Your task to perform on an android device: What's the weather like in Johannesburg? Image 0: 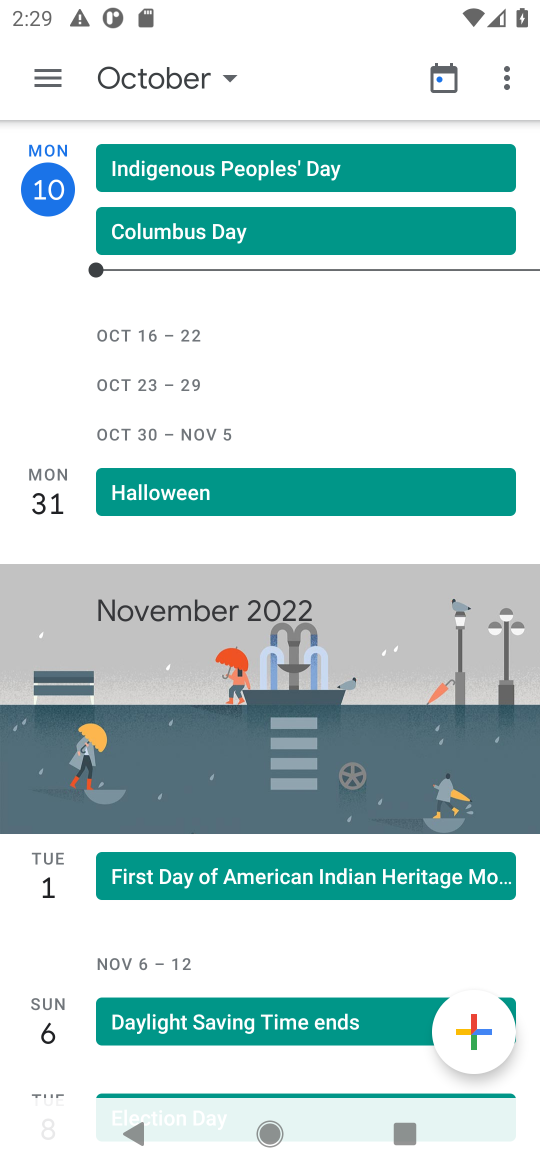
Step 0: press home button
Your task to perform on an android device: What's the weather like in Johannesburg? Image 1: 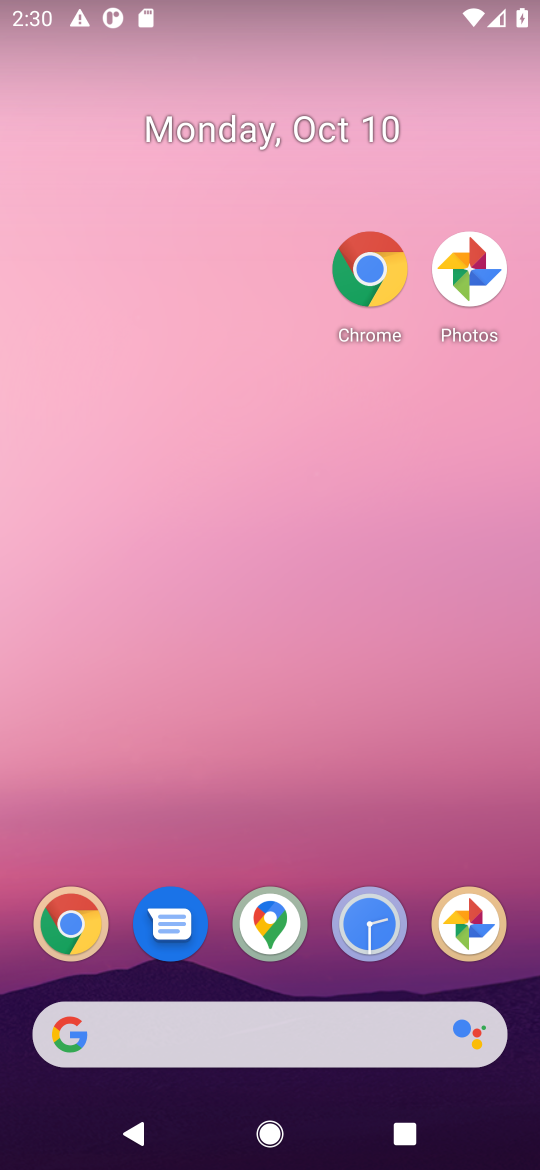
Step 1: drag from (310, 859) to (254, 120)
Your task to perform on an android device: What's the weather like in Johannesburg? Image 2: 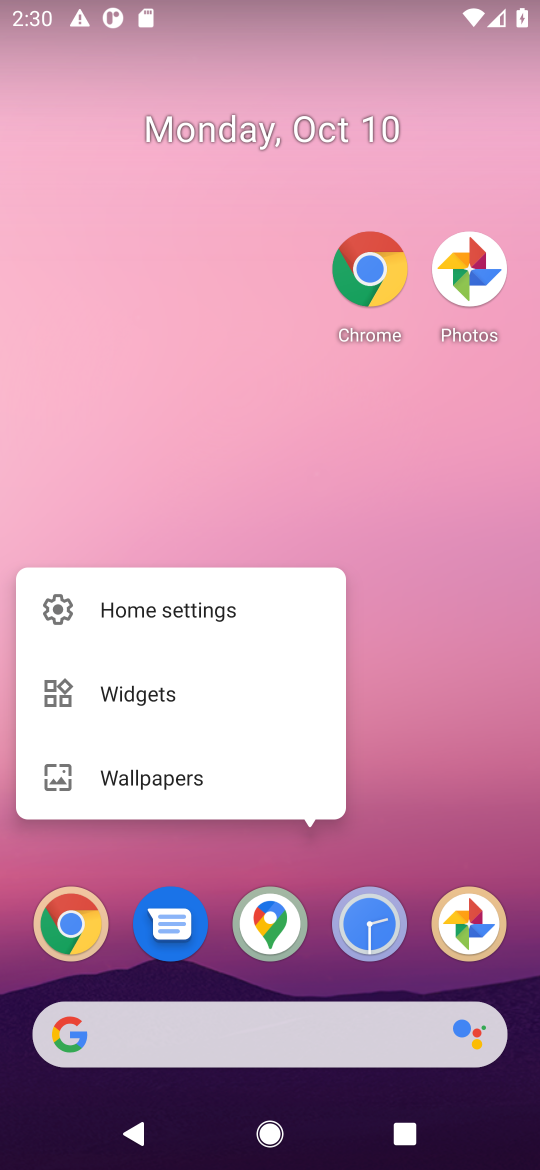
Step 2: click (410, 617)
Your task to perform on an android device: What's the weather like in Johannesburg? Image 3: 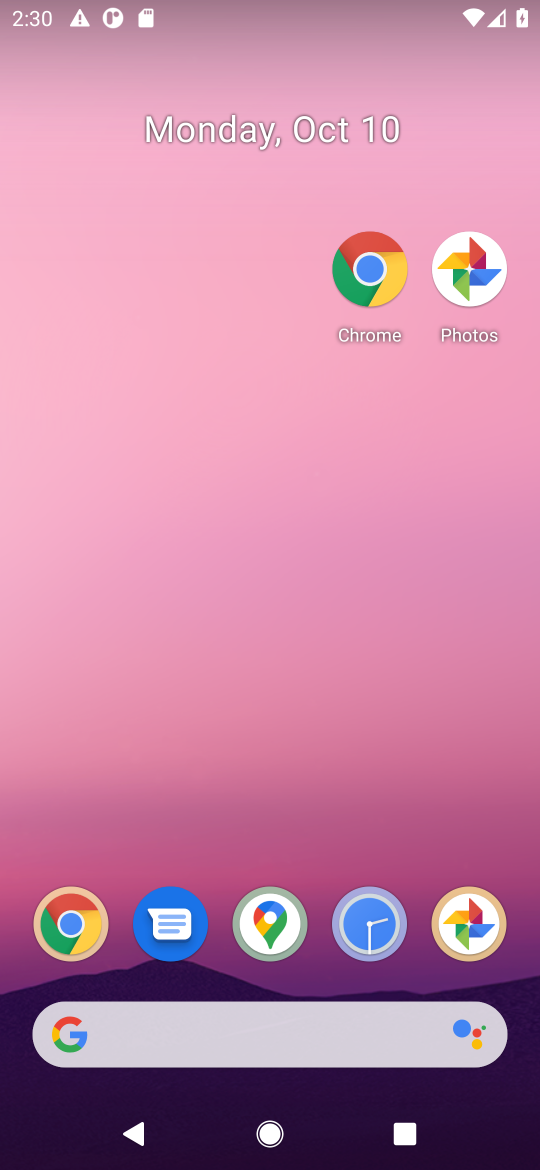
Step 3: drag from (415, 879) to (360, 41)
Your task to perform on an android device: What's the weather like in Johannesburg? Image 4: 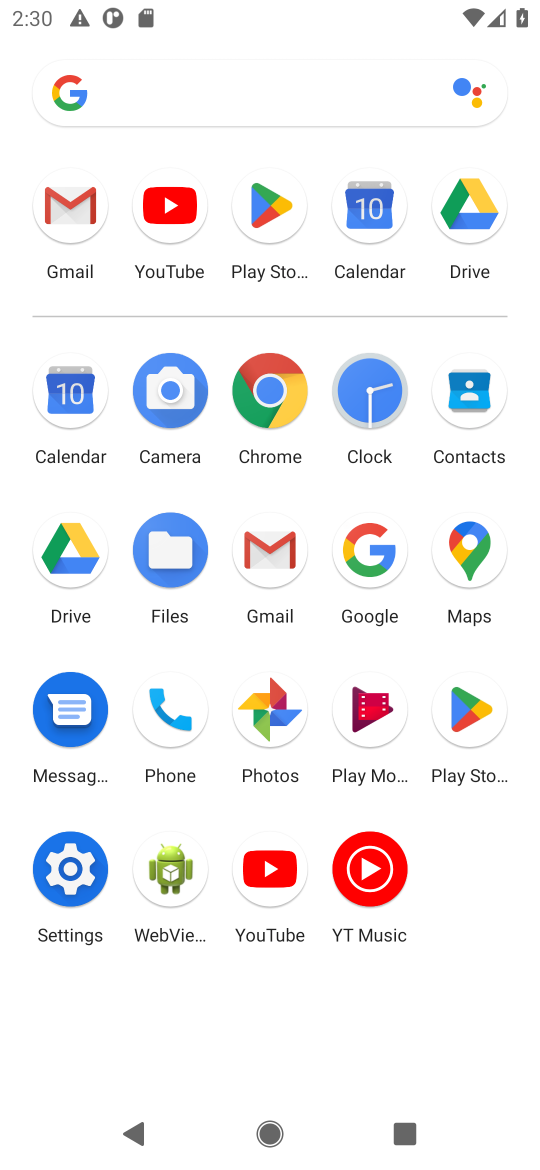
Step 4: click (285, 374)
Your task to perform on an android device: What's the weather like in Johannesburg? Image 5: 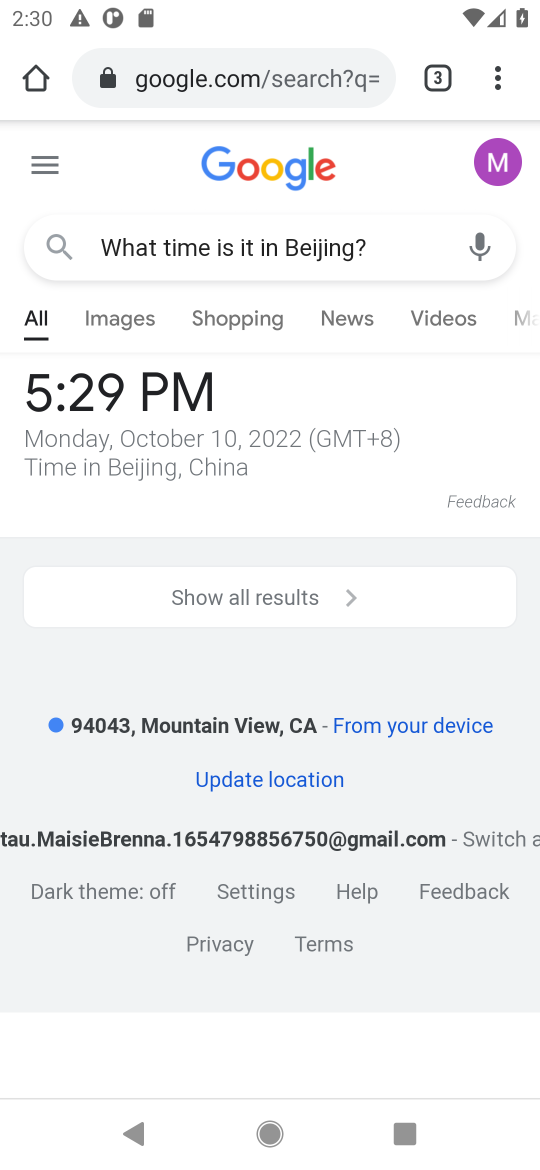
Step 5: click (285, 68)
Your task to perform on an android device: What's the weather like in Johannesburg? Image 6: 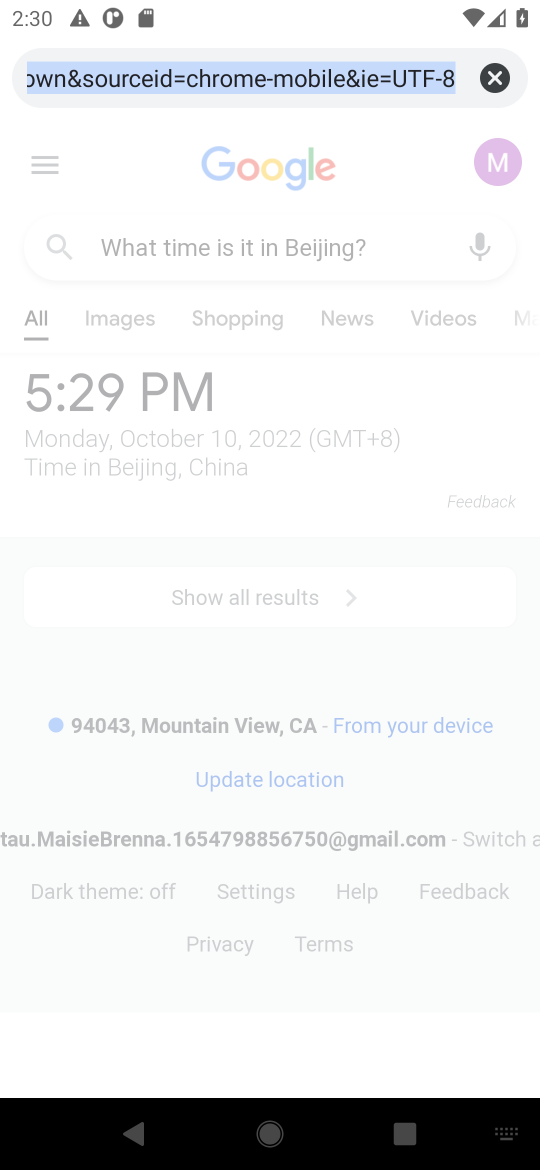
Step 6: click (490, 71)
Your task to perform on an android device: What's the weather like in Johannesburg? Image 7: 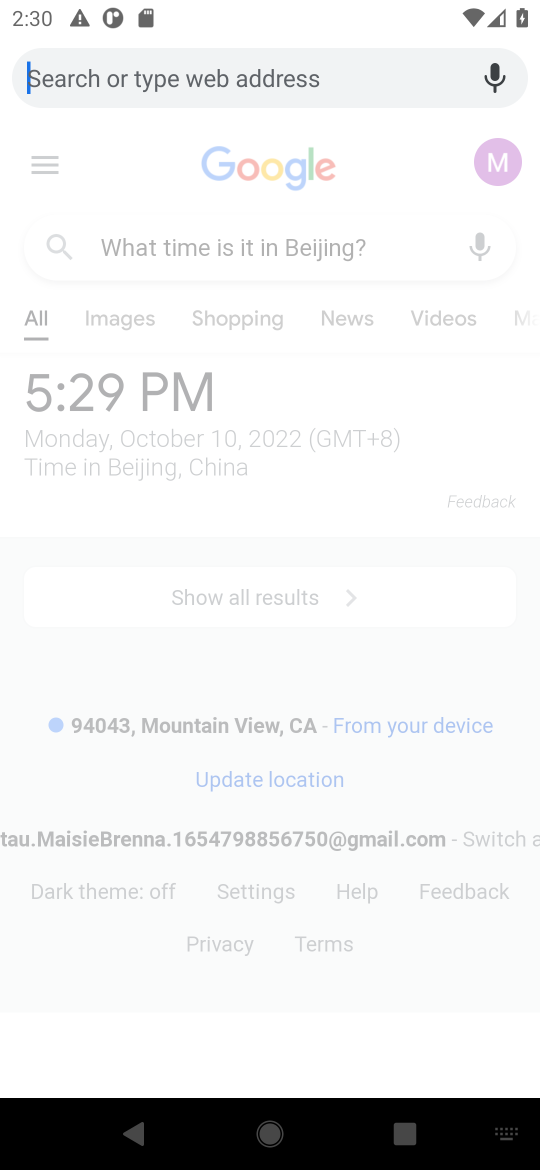
Step 7: type "What's the weather like in Johannesburg?"
Your task to perform on an android device: What's the weather like in Johannesburg? Image 8: 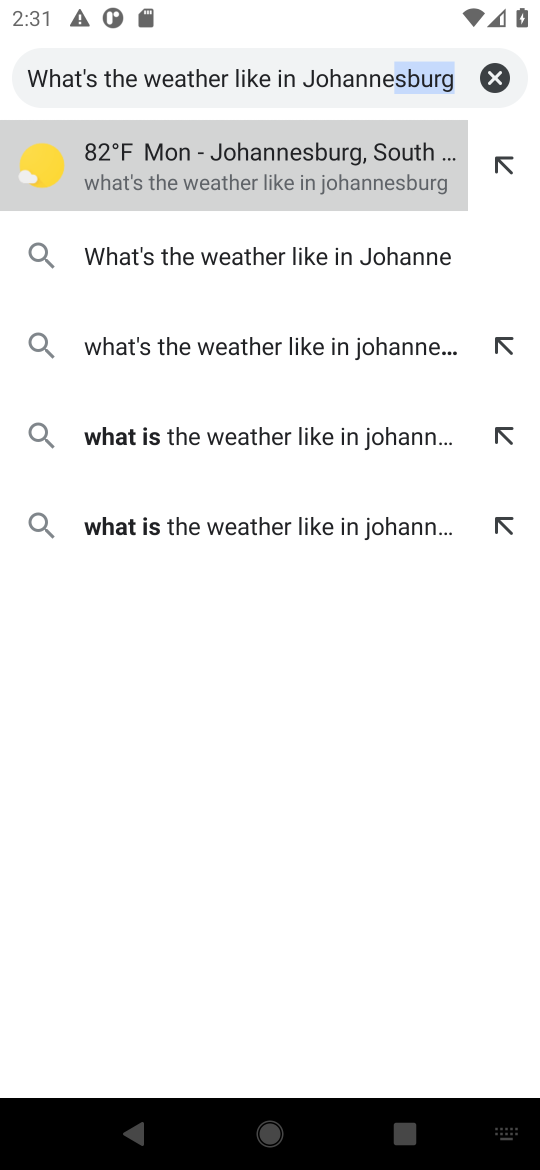
Step 8: click (197, 167)
Your task to perform on an android device: What's the weather like in Johannesburg? Image 9: 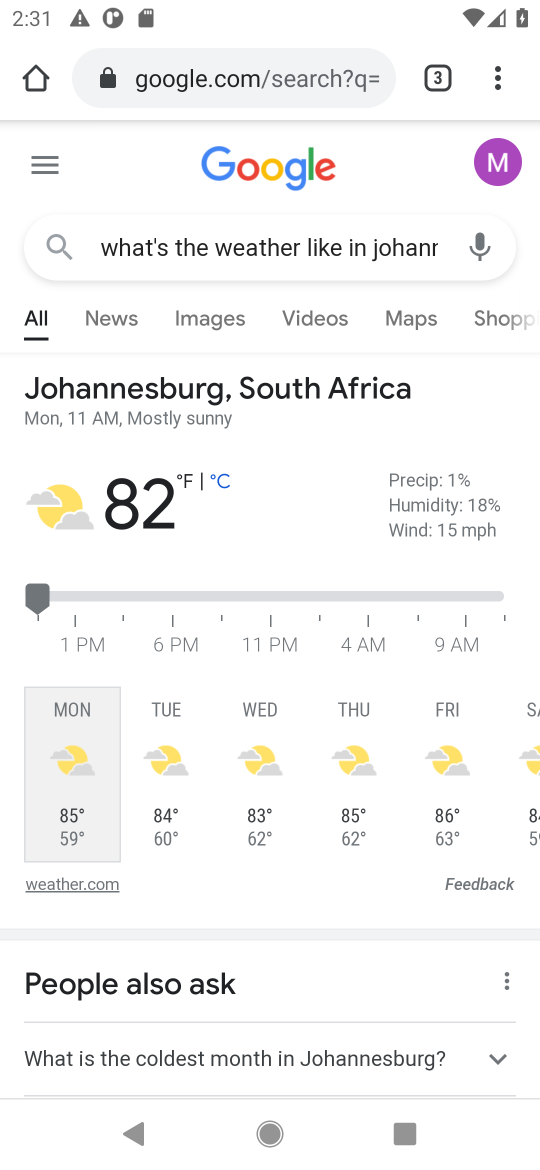
Step 9: task complete